Your task to perform on an android device: Go to Amazon Image 0: 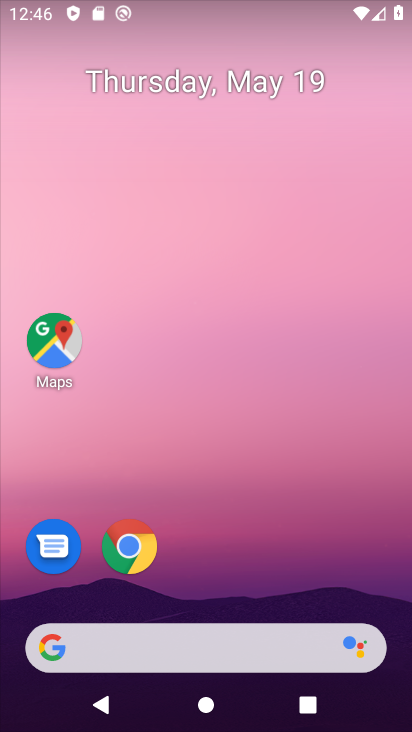
Step 0: click (130, 543)
Your task to perform on an android device: Go to Amazon Image 1: 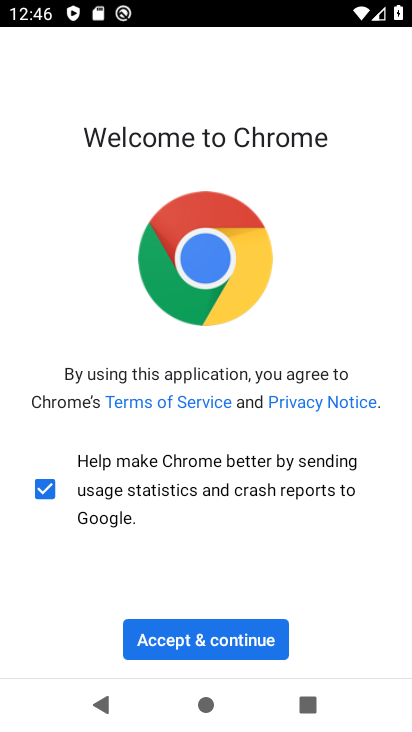
Step 1: click (196, 632)
Your task to perform on an android device: Go to Amazon Image 2: 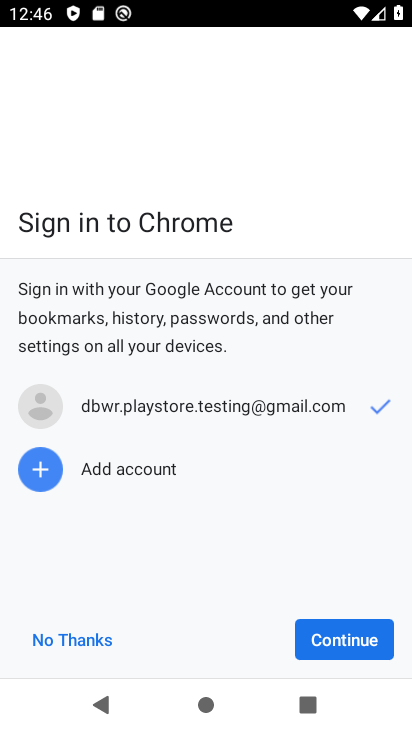
Step 2: click (330, 635)
Your task to perform on an android device: Go to Amazon Image 3: 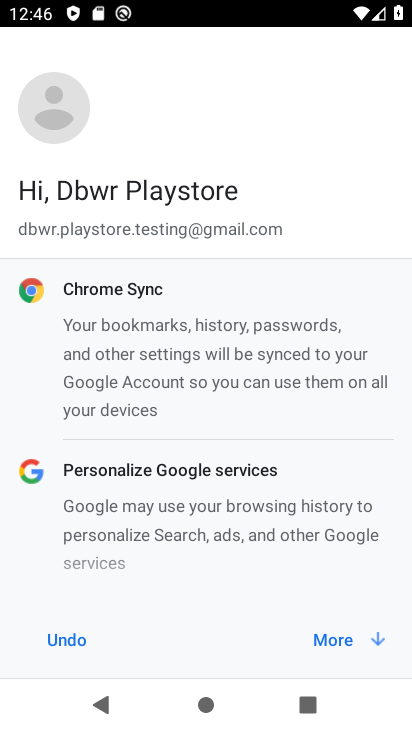
Step 3: click (369, 634)
Your task to perform on an android device: Go to Amazon Image 4: 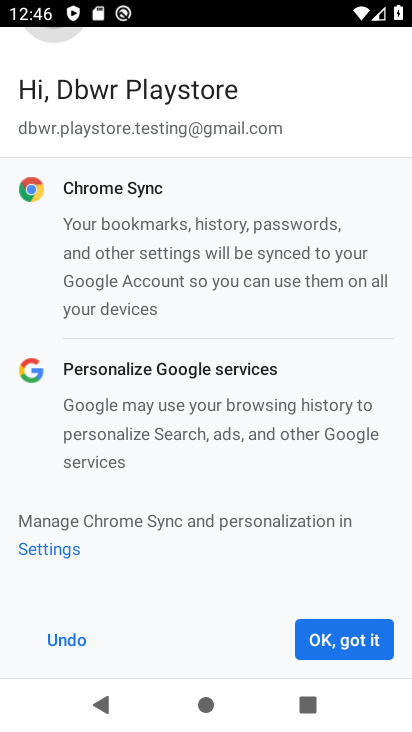
Step 4: click (369, 630)
Your task to perform on an android device: Go to Amazon Image 5: 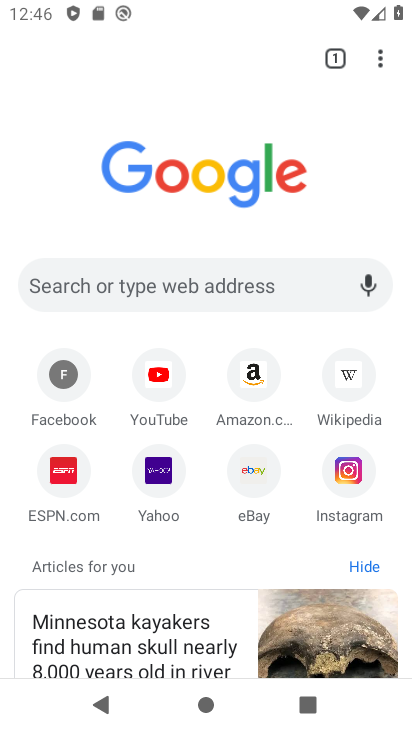
Step 5: click (257, 366)
Your task to perform on an android device: Go to Amazon Image 6: 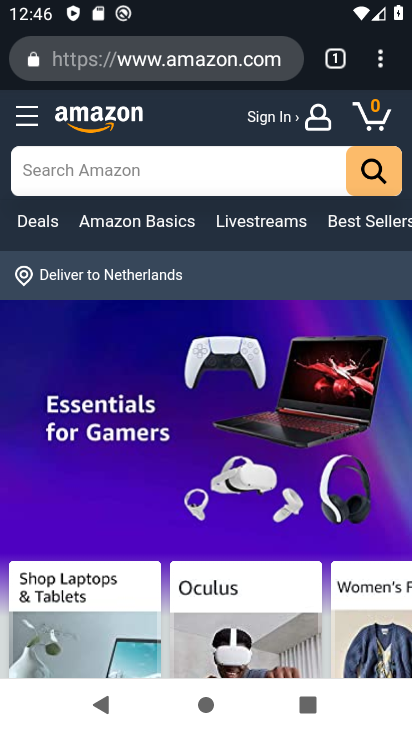
Step 6: task complete